Your task to perform on an android device: What's the weather going to be tomorrow? Image 0: 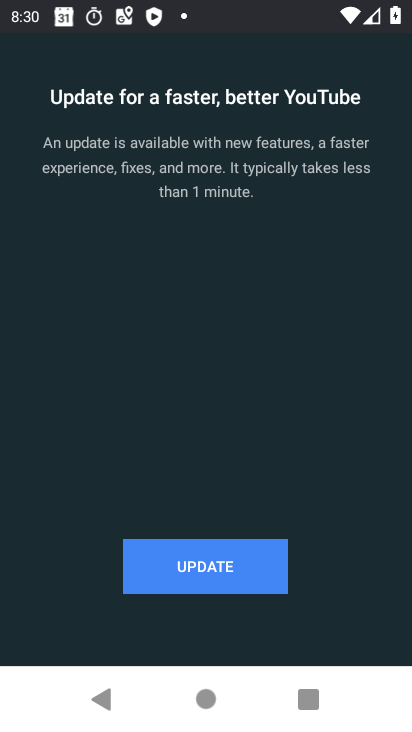
Step 0: press home button
Your task to perform on an android device: What's the weather going to be tomorrow? Image 1: 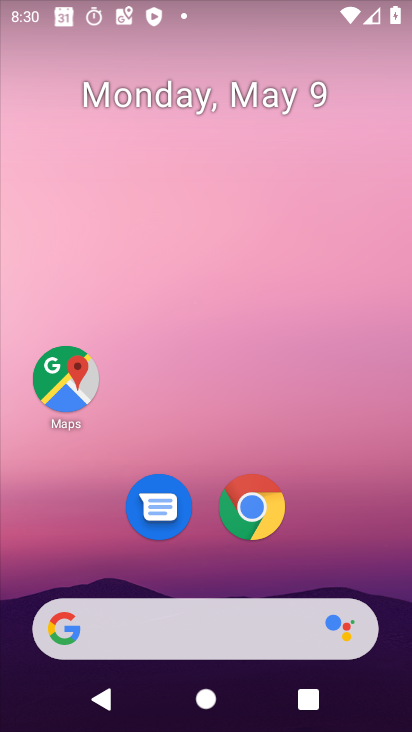
Step 1: click (186, 634)
Your task to perform on an android device: What's the weather going to be tomorrow? Image 2: 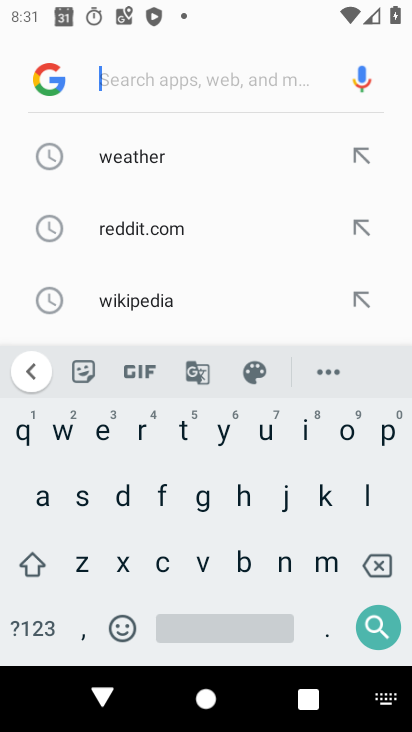
Step 2: click (139, 159)
Your task to perform on an android device: What's the weather going to be tomorrow? Image 3: 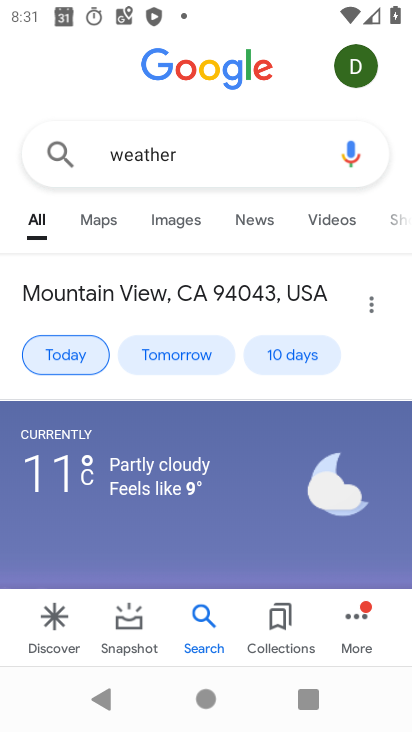
Step 3: click (182, 354)
Your task to perform on an android device: What's the weather going to be tomorrow? Image 4: 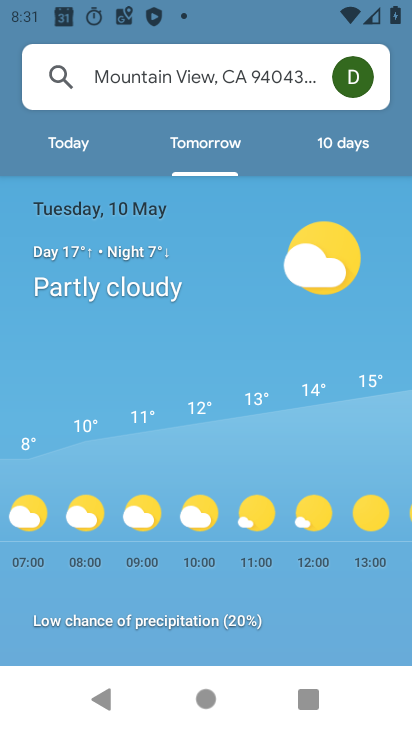
Step 4: task complete